Your task to perform on an android device: turn off location Image 0: 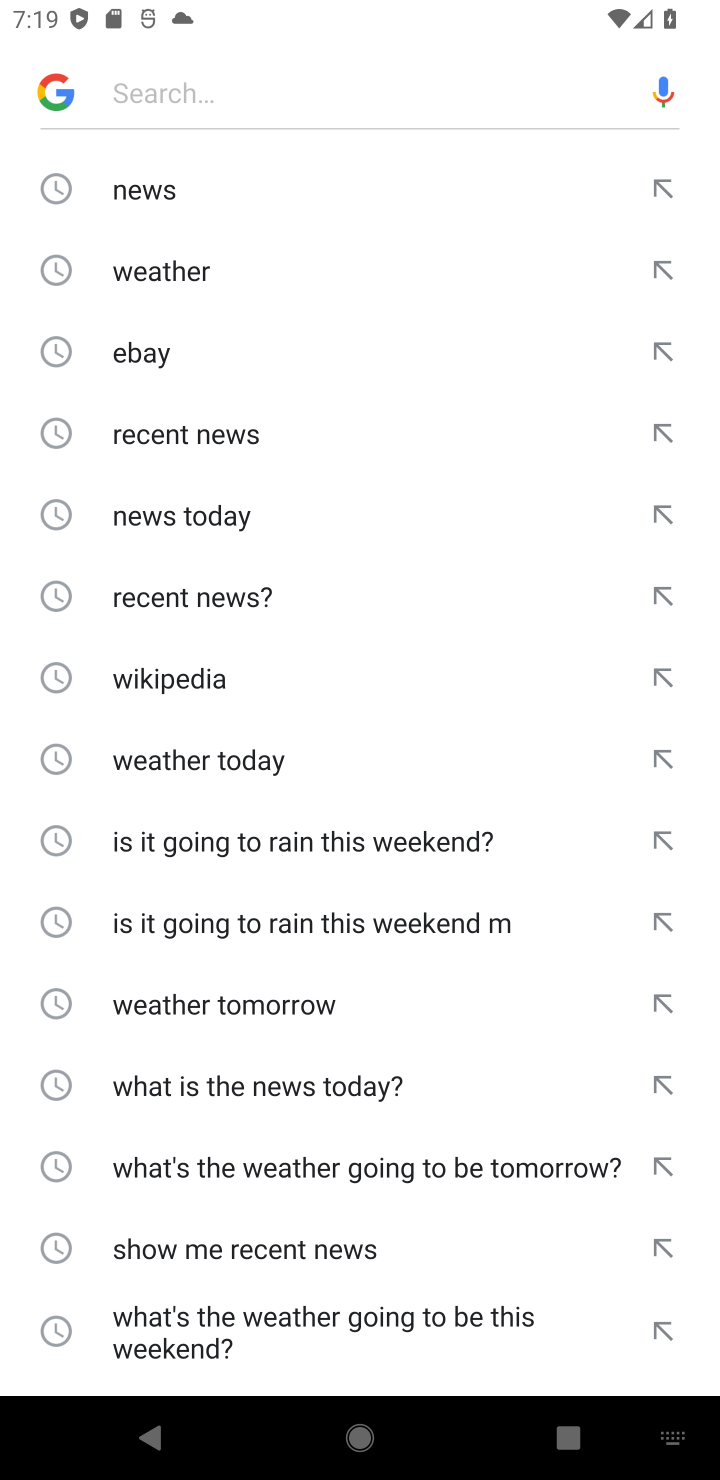
Step 0: task complete